Your task to perform on an android device: Clear the cart on bestbuy. Add "logitech g pro" to the cart on bestbuy, then select checkout. Image 0: 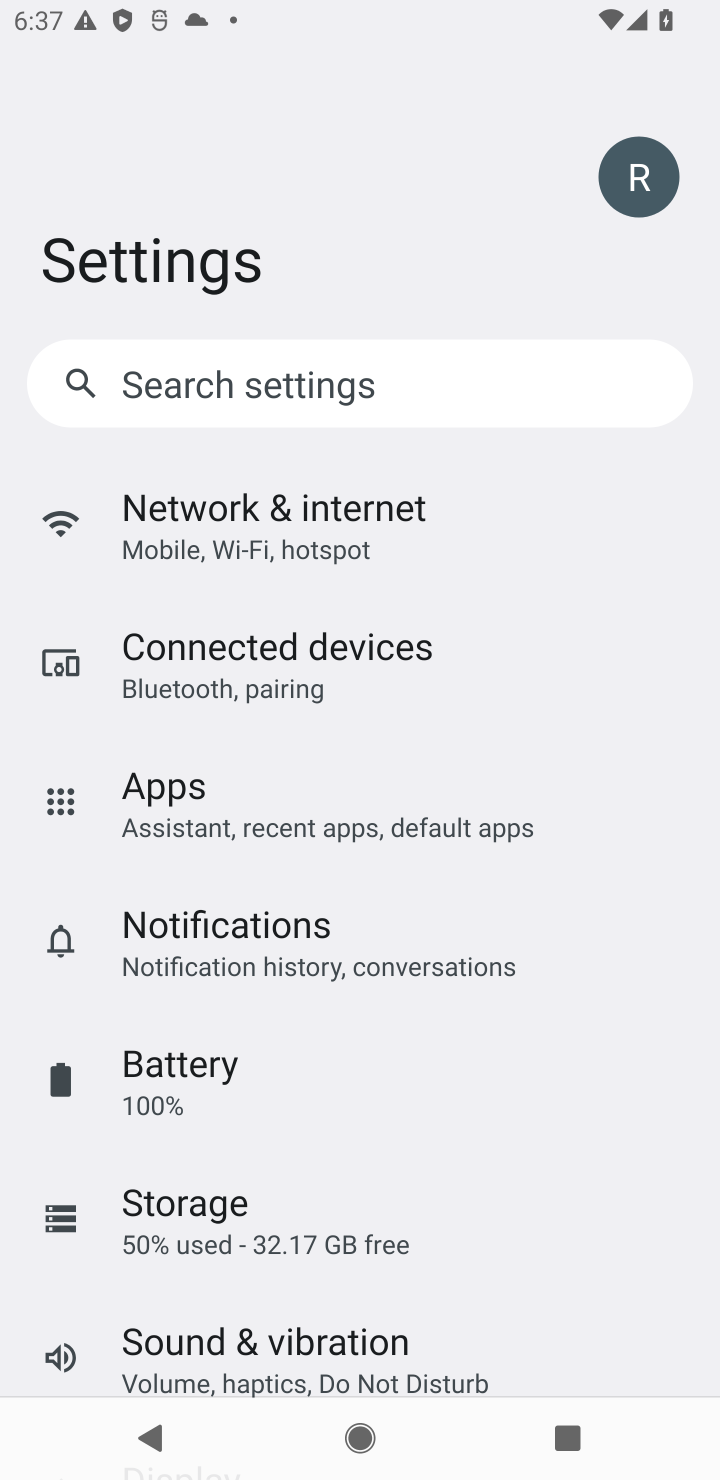
Step 0: press home button
Your task to perform on an android device: Clear the cart on bestbuy. Add "logitech g pro" to the cart on bestbuy, then select checkout. Image 1: 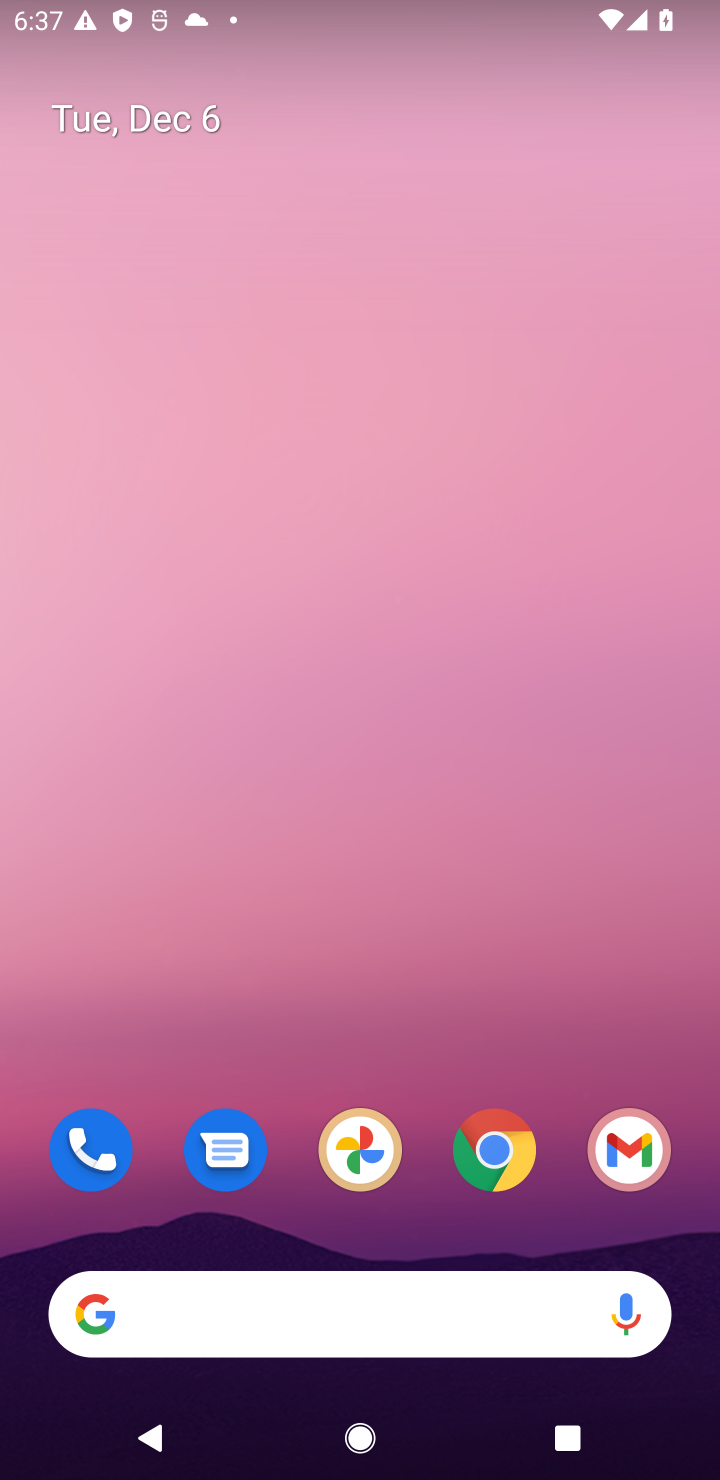
Step 1: click (484, 1152)
Your task to perform on an android device: Clear the cart on bestbuy. Add "logitech g pro" to the cart on bestbuy, then select checkout. Image 2: 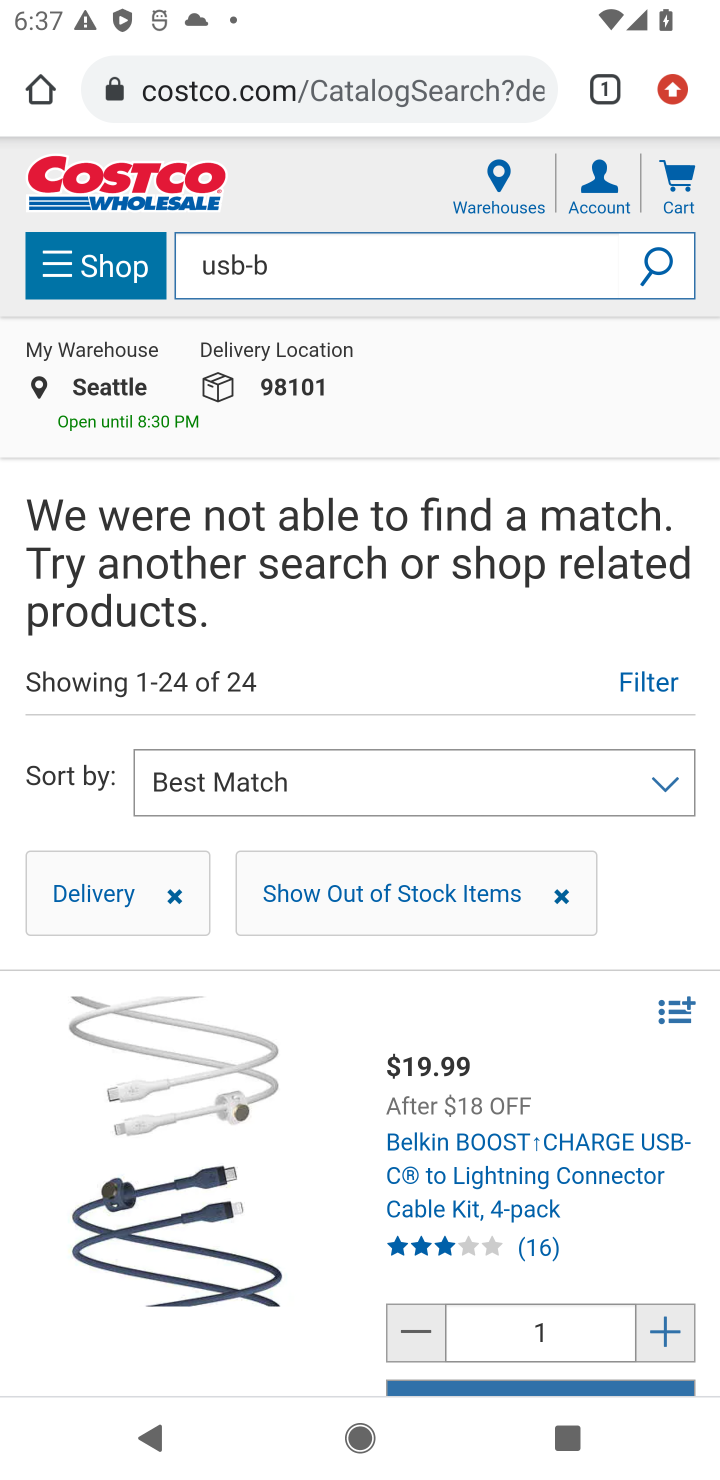
Step 2: click (316, 93)
Your task to perform on an android device: Clear the cart on bestbuy. Add "logitech g pro" to the cart on bestbuy, then select checkout. Image 3: 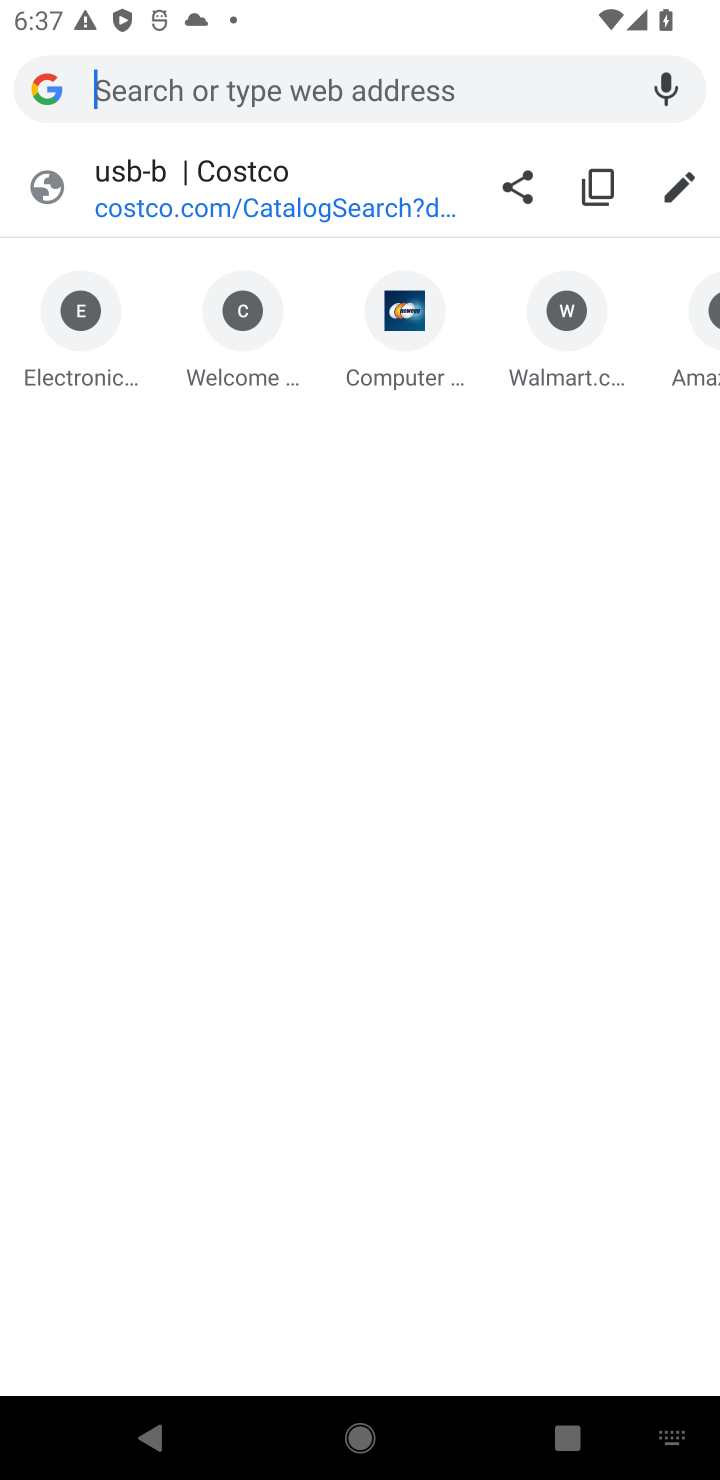
Step 3: type "bestbuy.com"
Your task to perform on an android device: Clear the cart on bestbuy. Add "logitech g pro" to the cart on bestbuy, then select checkout. Image 4: 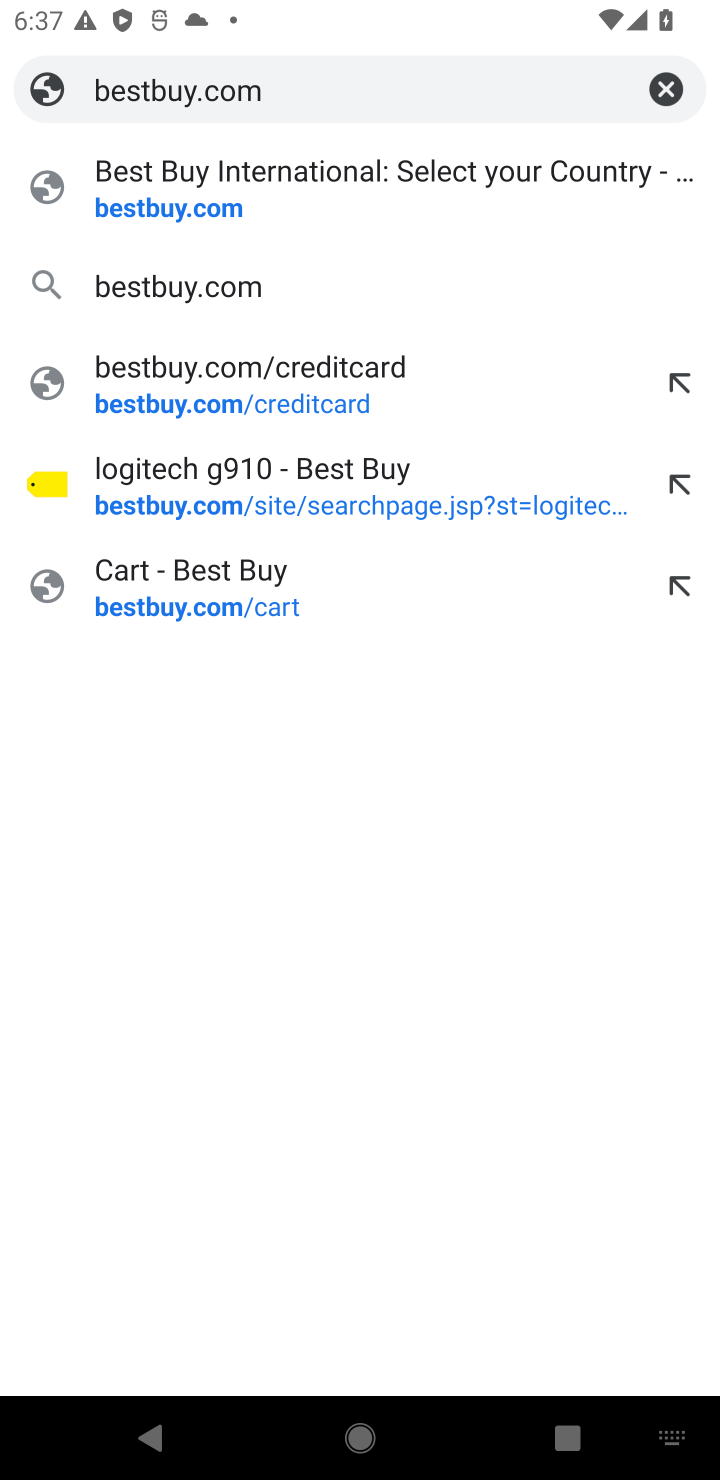
Step 4: click (141, 207)
Your task to perform on an android device: Clear the cart on bestbuy. Add "logitech g pro" to the cart on bestbuy, then select checkout. Image 5: 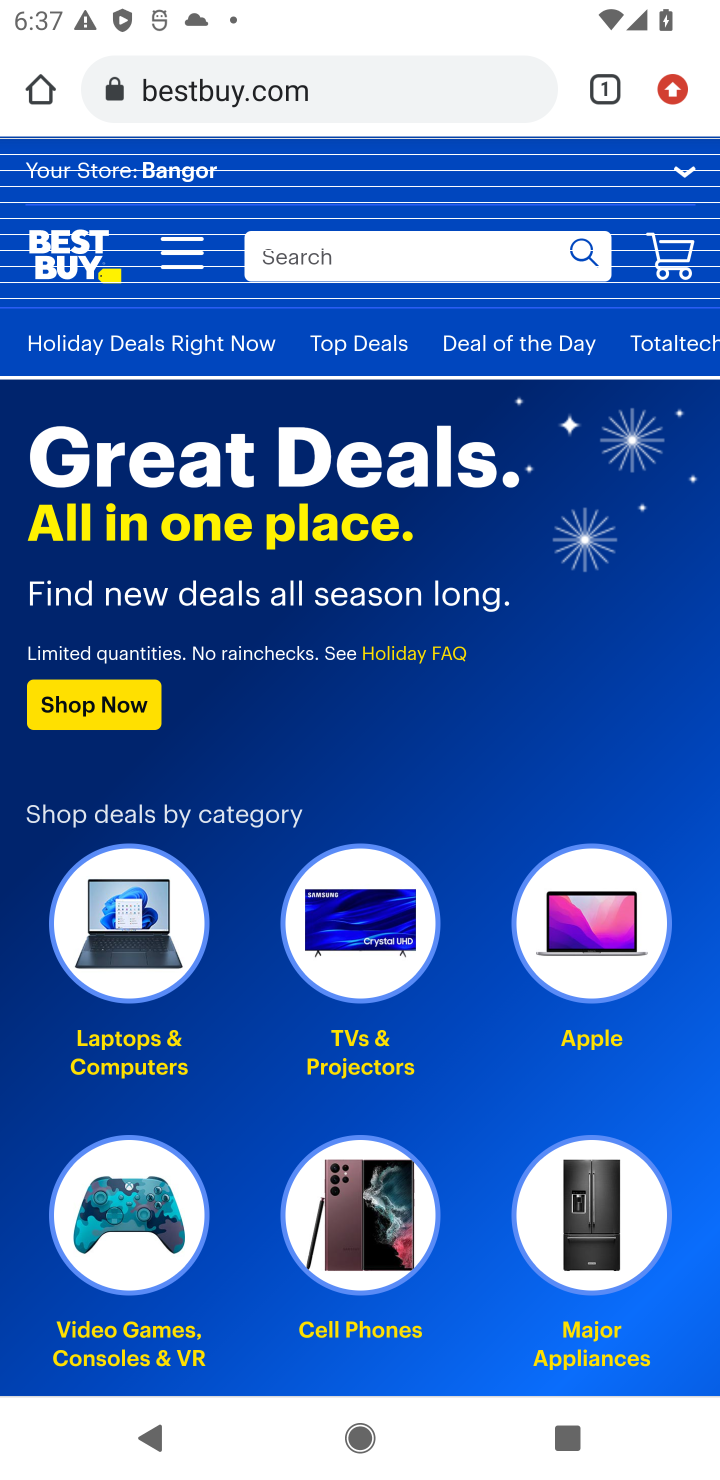
Step 5: click (671, 255)
Your task to perform on an android device: Clear the cart on bestbuy. Add "logitech g pro" to the cart on bestbuy, then select checkout. Image 6: 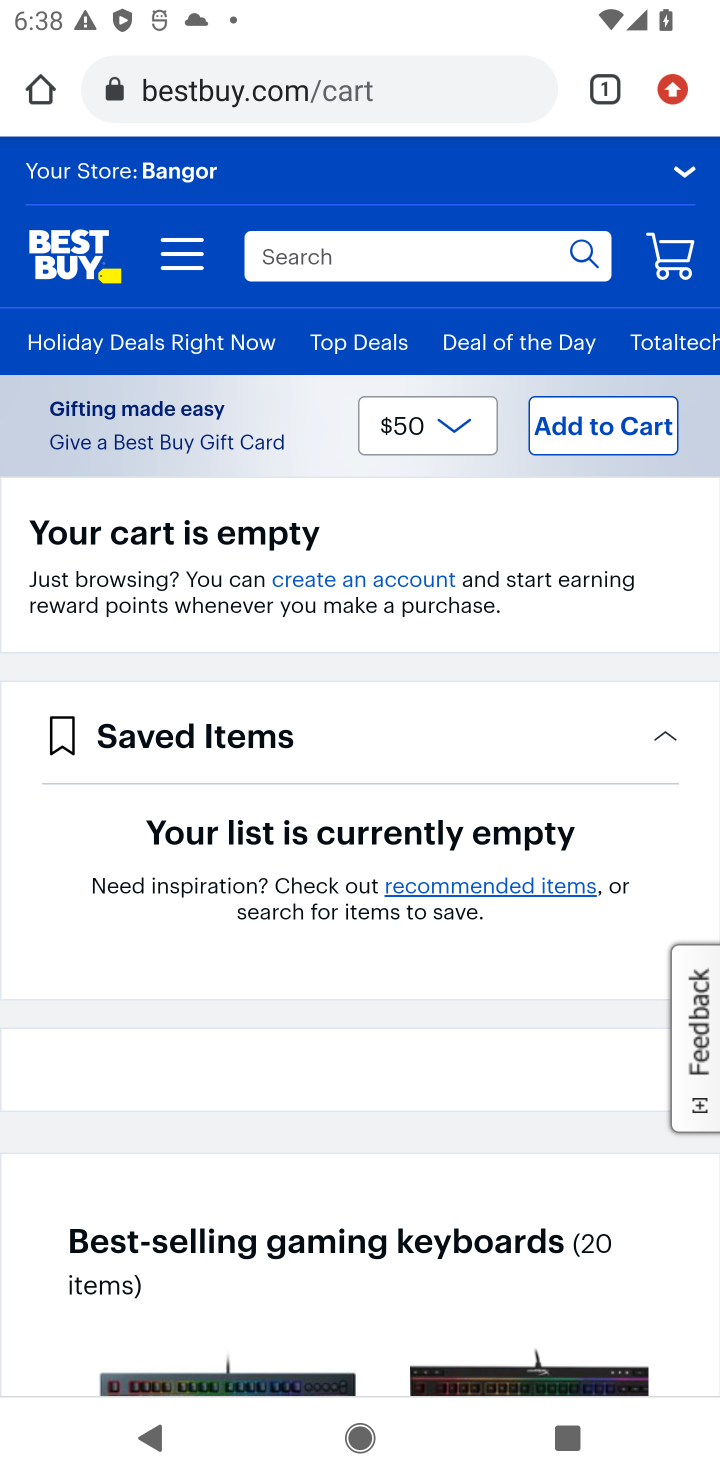
Step 6: click (298, 261)
Your task to perform on an android device: Clear the cart on bestbuy. Add "logitech g pro" to the cart on bestbuy, then select checkout. Image 7: 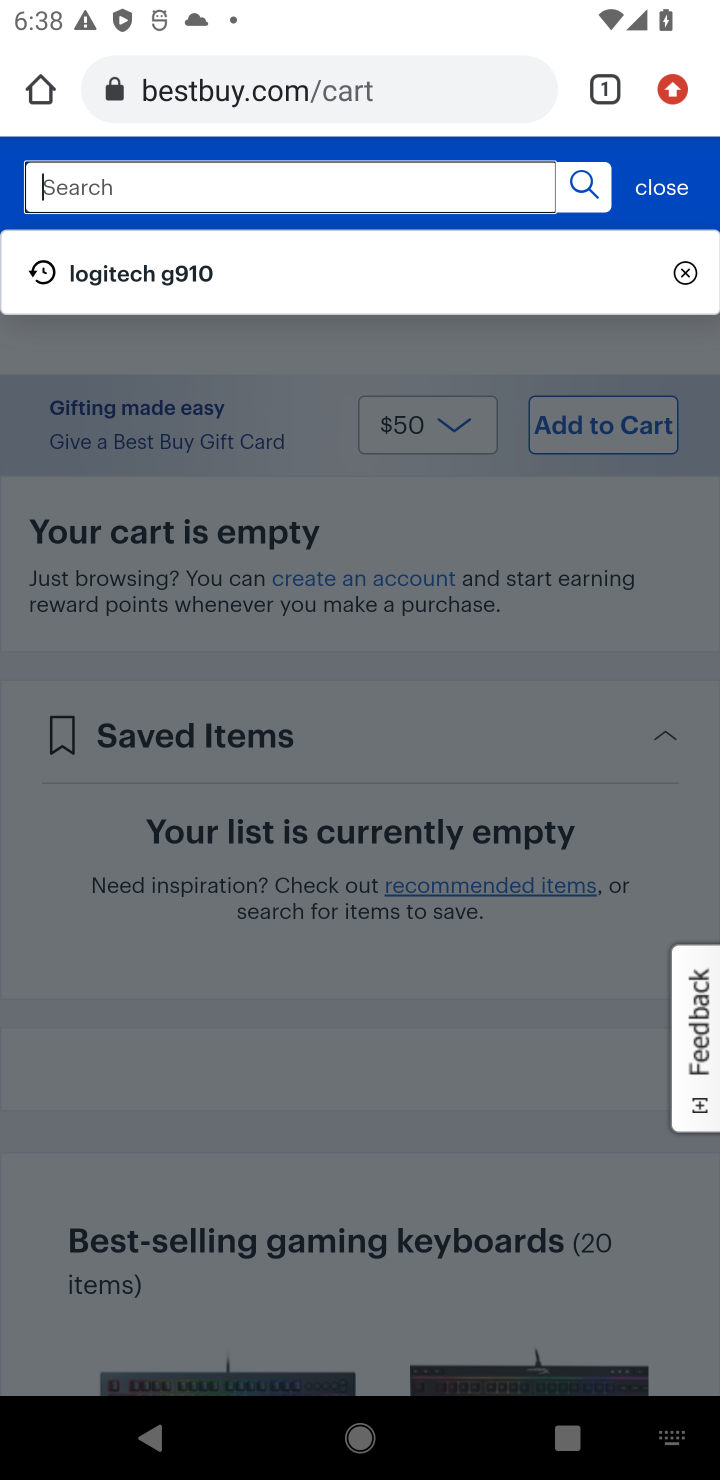
Step 7: type "logitech g pro"
Your task to perform on an android device: Clear the cart on bestbuy. Add "logitech g pro" to the cart on bestbuy, then select checkout. Image 8: 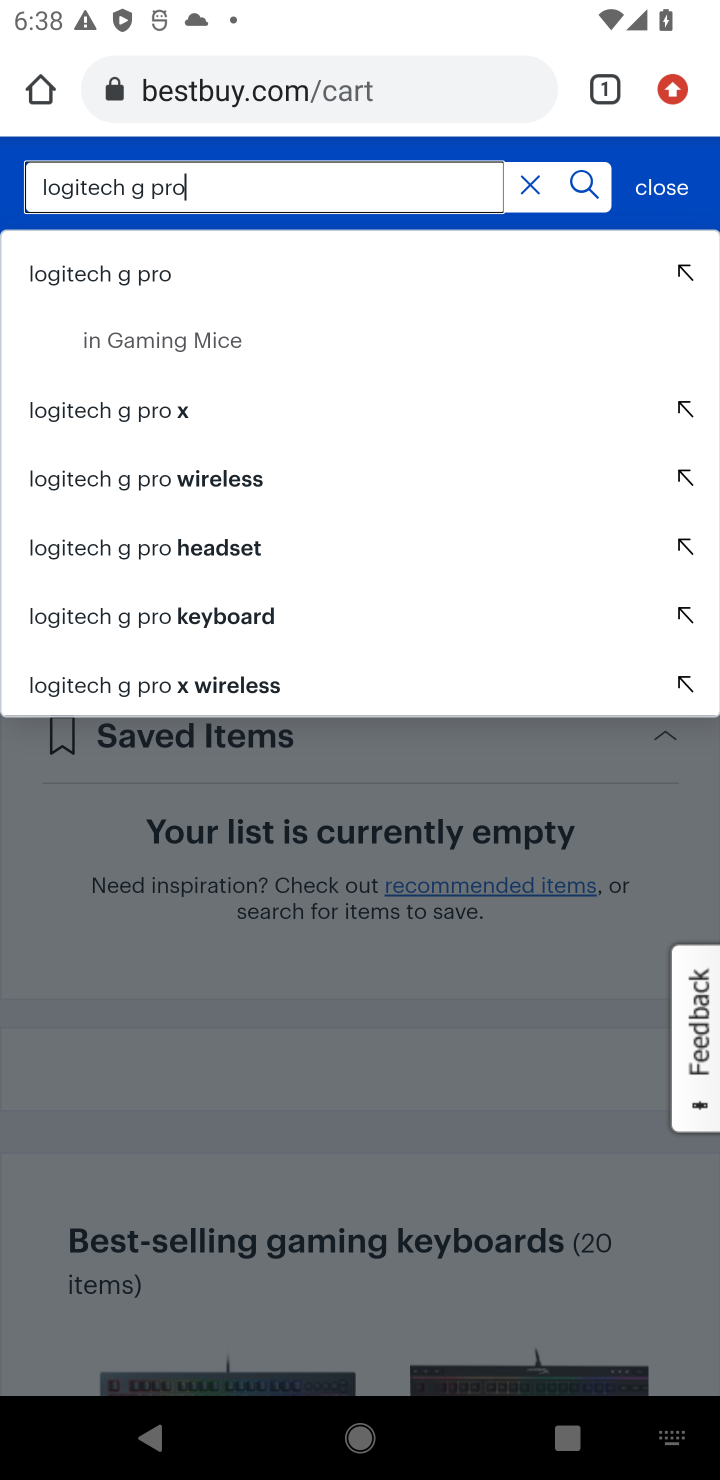
Step 8: click (570, 181)
Your task to perform on an android device: Clear the cart on bestbuy. Add "logitech g pro" to the cart on bestbuy, then select checkout. Image 9: 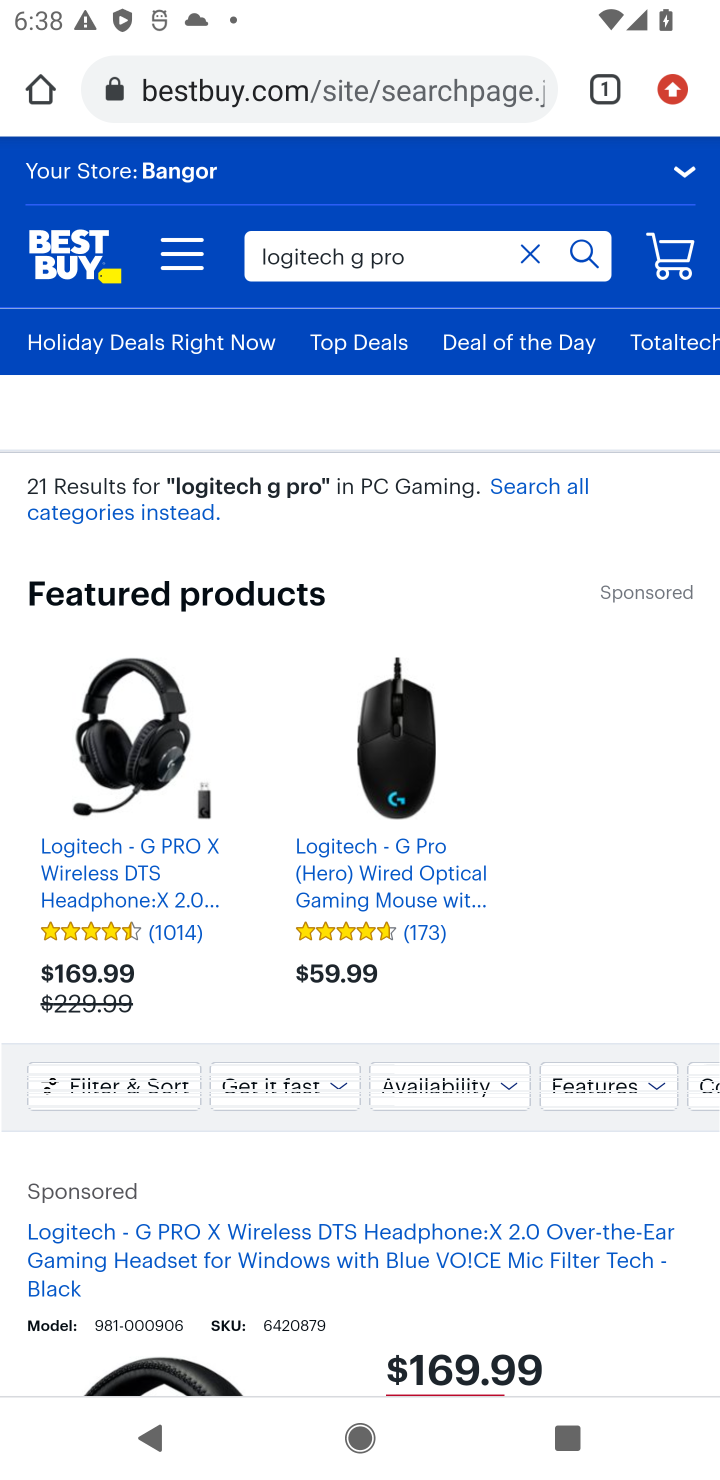
Step 9: drag from (238, 963) to (240, 312)
Your task to perform on an android device: Clear the cart on bestbuy. Add "logitech g pro" to the cart on bestbuy, then select checkout. Image 10: 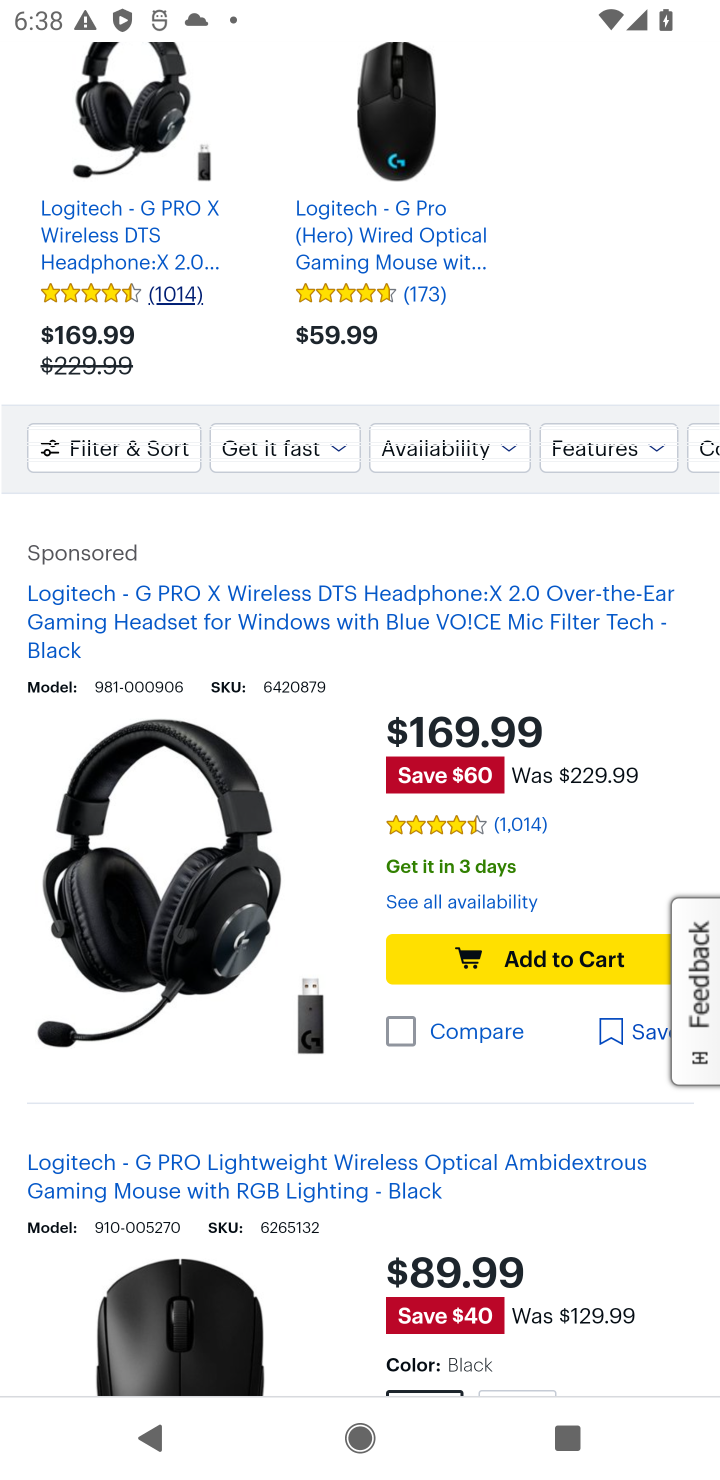
Step 10: click (469, 962)
Your task to perform on an android device: Clear the cart on bestbuy. Add "logitech g pro" to the cart on bestbuy, then select checkout. Image 11: 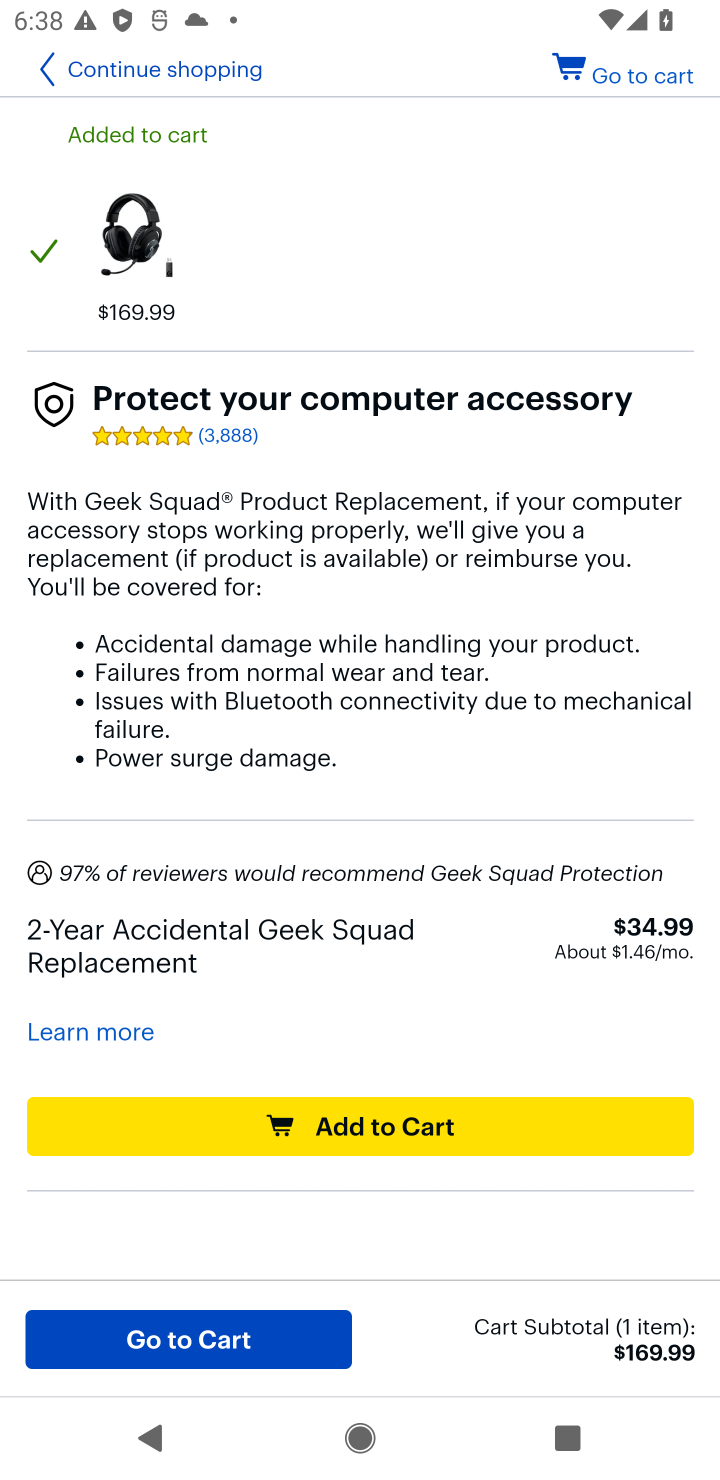
Step 11: click (631, 65)
Your task to perform on an android device: Clear the cart on bestbuy. Add "logitech g pro" to the cart on bestbuy, then select checkout. Image 12: 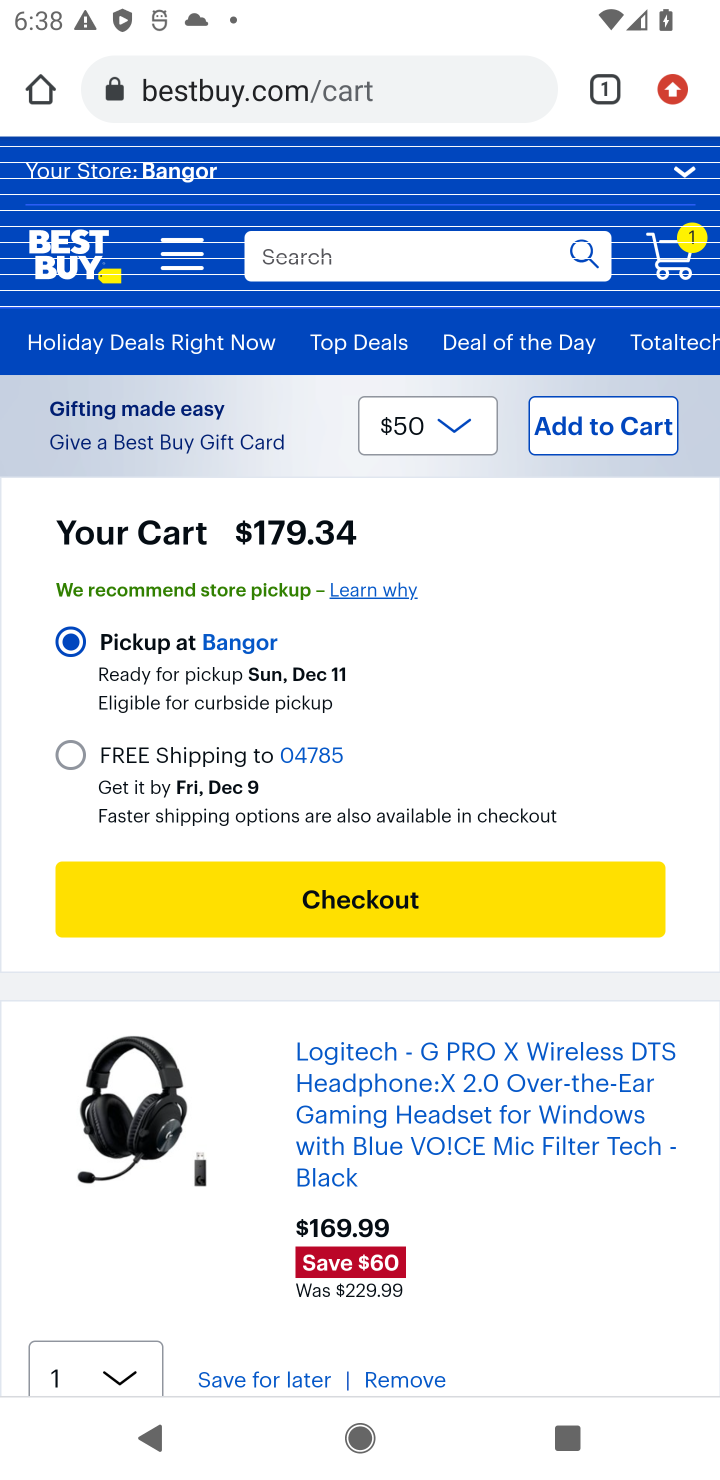
Step 12: click (374, 897)
Your task to perform on an android device: Clear the cart on bestbuy. Add "logitech g pro" to the cart on bestbuy, then select checkout. Image 13: 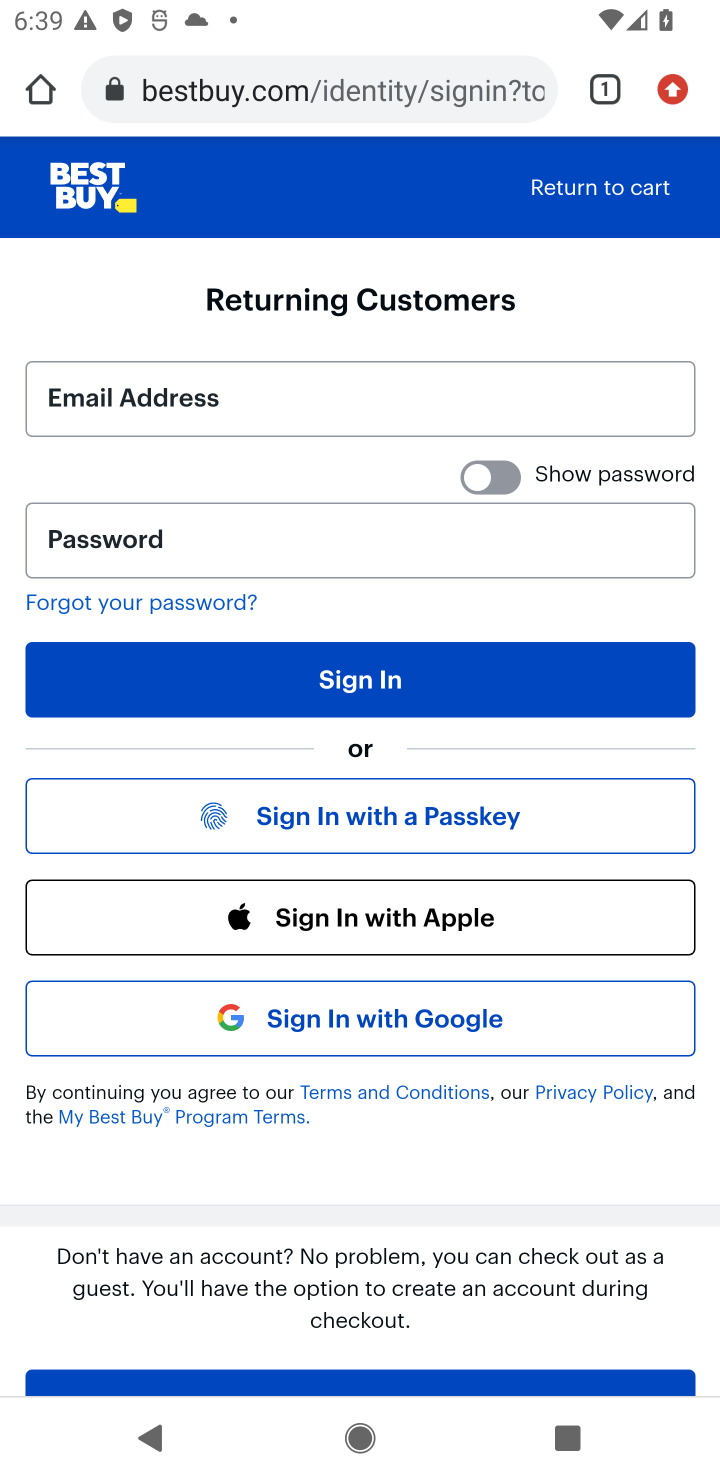
Step 13: task complete